Your task to perform on an android device: Go to eBay Image 0: 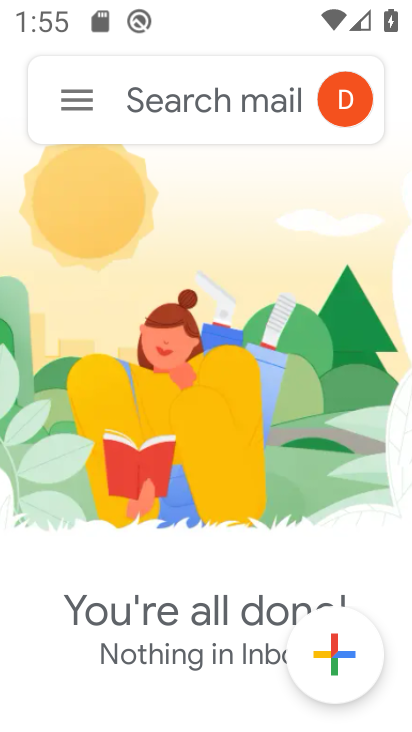
Step 0: press back button
Your task to perform on an android device: Go to eBay Image 1: 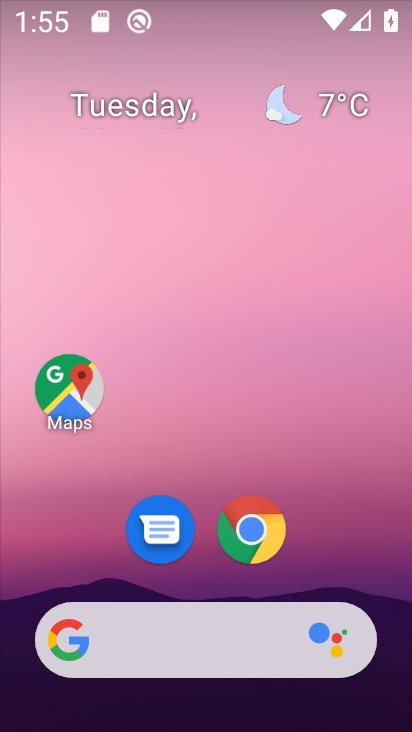
Step 1: drag from (310, 551) to (275, 0)
Your task to perform on an android device: Go to eBay Image 2: 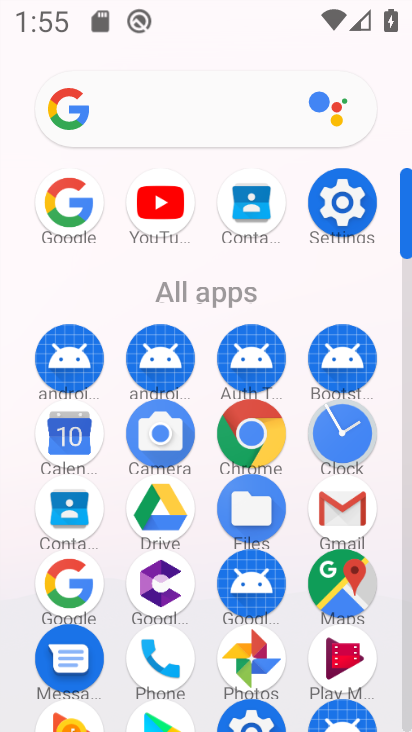
Step 2: click (63, 197)
Your task to perform on an android device: Go to eBay Image 3: 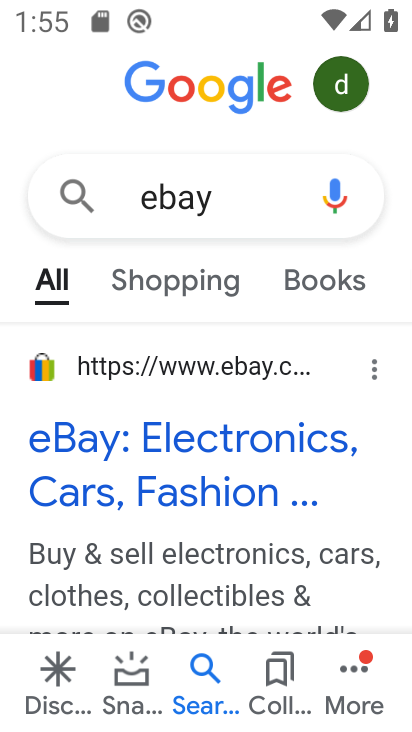
Step 3: click (155, 437)
Your task to perform on an android device: Go to eBay Image 4: 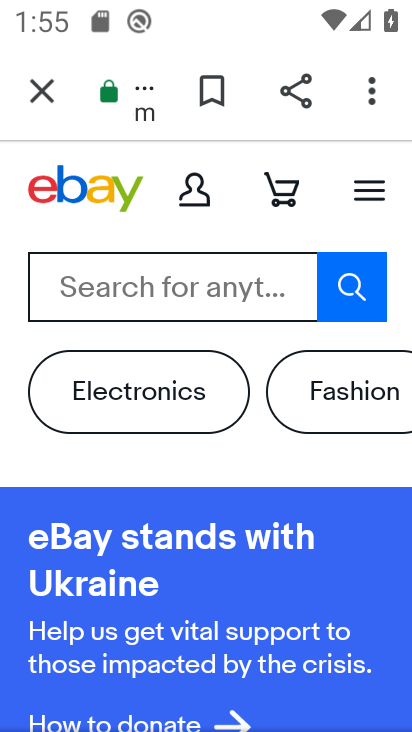
Step 4: task complete